Your task to perform on an android device: clear history in the chrome app Image 0: 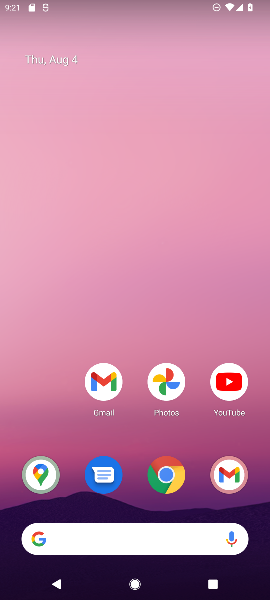
Step 0: click (164, 477)
Your task to perform on an android device: clear history in the chrome app Image 1: 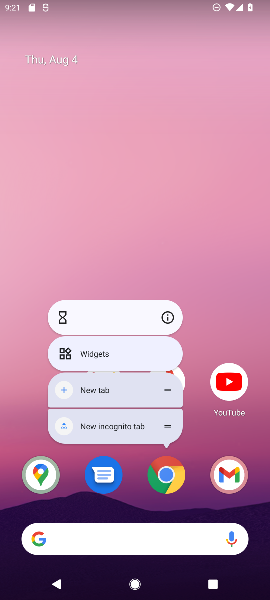
Step 1: click (168, 316)
Your task to perform on an android device: clear history in the chrome app Image 2: 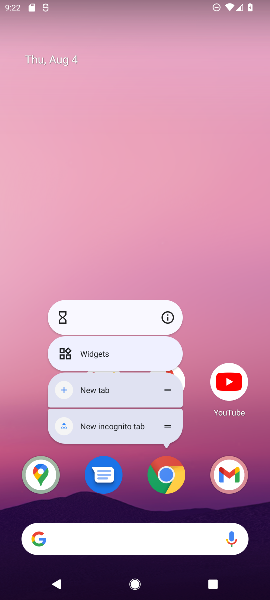
Step 2: drag from (137, 472) to (164, 185)
Your task to perform on an android device: clear history in the chrome app Image 3: 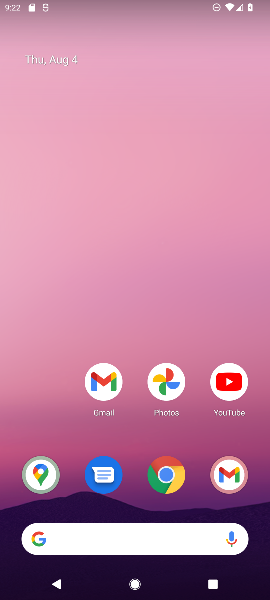
Step 3: click (171, 477)
Your task to perform on an android device: clear history in the chrome app Image 4: 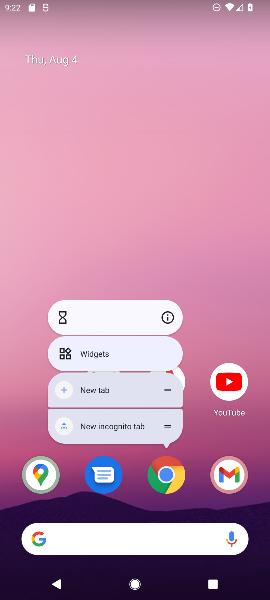
Step 4: click (211, 191)
Your task to perform on an android device: clear history in the chrome app Image 5: 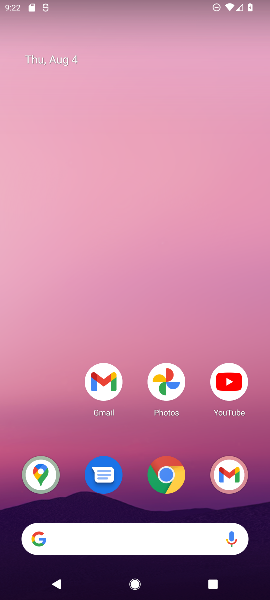
Step 5: drag from (128, 486) to (137, 193)
Your task to perform on an android device: clear history in the chrome app Image 6: 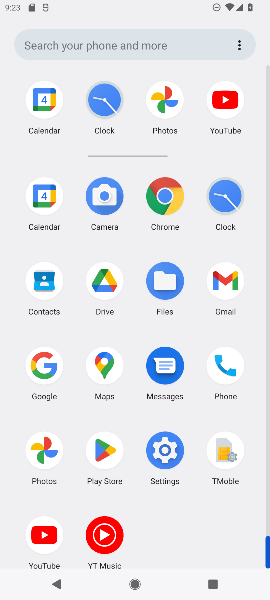
Step 6: drag from (129, 455) to (130, 212)
Your task to perform on an android device: clear history in the chrome app Image 7: 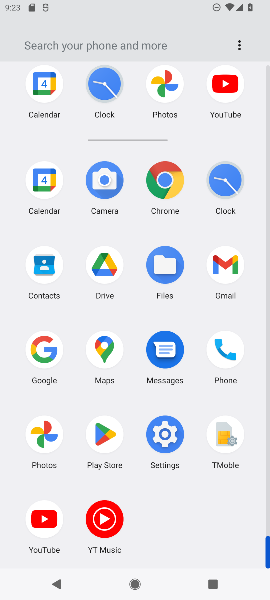
Step 7: click (157, 189)
Your task to perform on an android device: clear history in the chrome app Image 8: 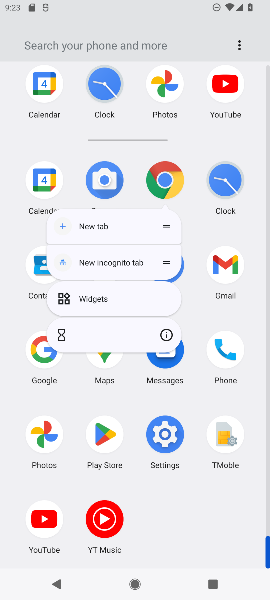
Step 8: click (159, 334)
Your task to perform on an android device: clear history in the chrome app Image 9: 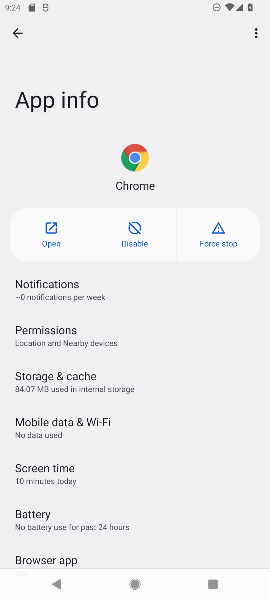
Step 9: click (45, 232)
Your task to perform on an android device: clear history in the chrome app Image 10: 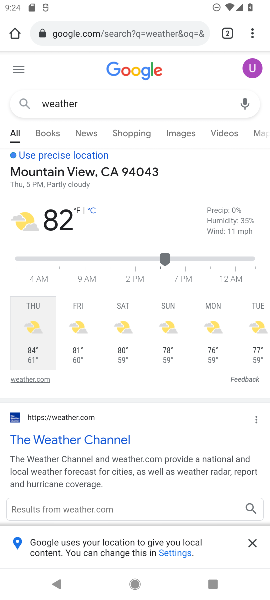
Step 10: drag from (249, 35) to (162, 171)
Your task to perform on an android device: clear history in the chrome app Image 11: 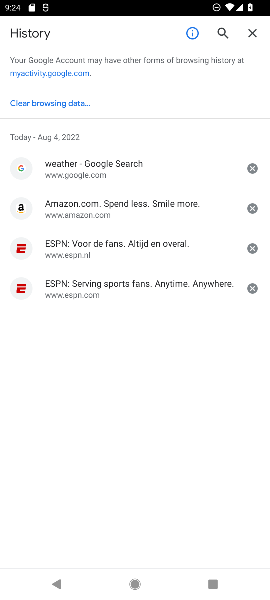
Step 11: click (28, 104)
Your task to perform on an android device: clear history in the chrome app Image 12: 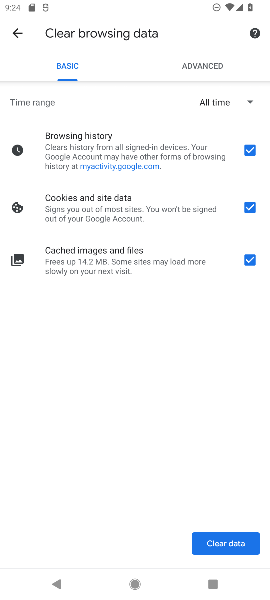
Step 12: click (204, 554)
Your task to perform on an android device: clear history in the chrome app Image 13: 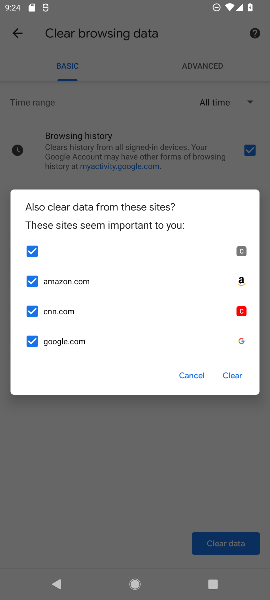
Step 13: click (232, 372)
Your task to perform on an android device: clear history in the chrome app Image 14: 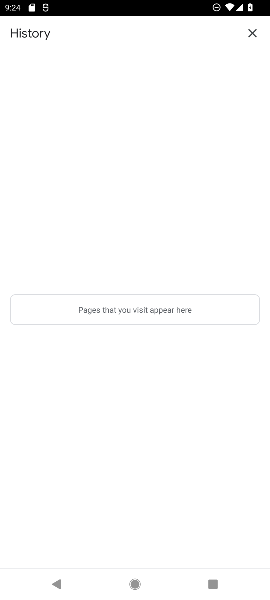
Step 14: task complete